Your task to perform on an android device: open app "Roku - Official Remote Control" Image 0: 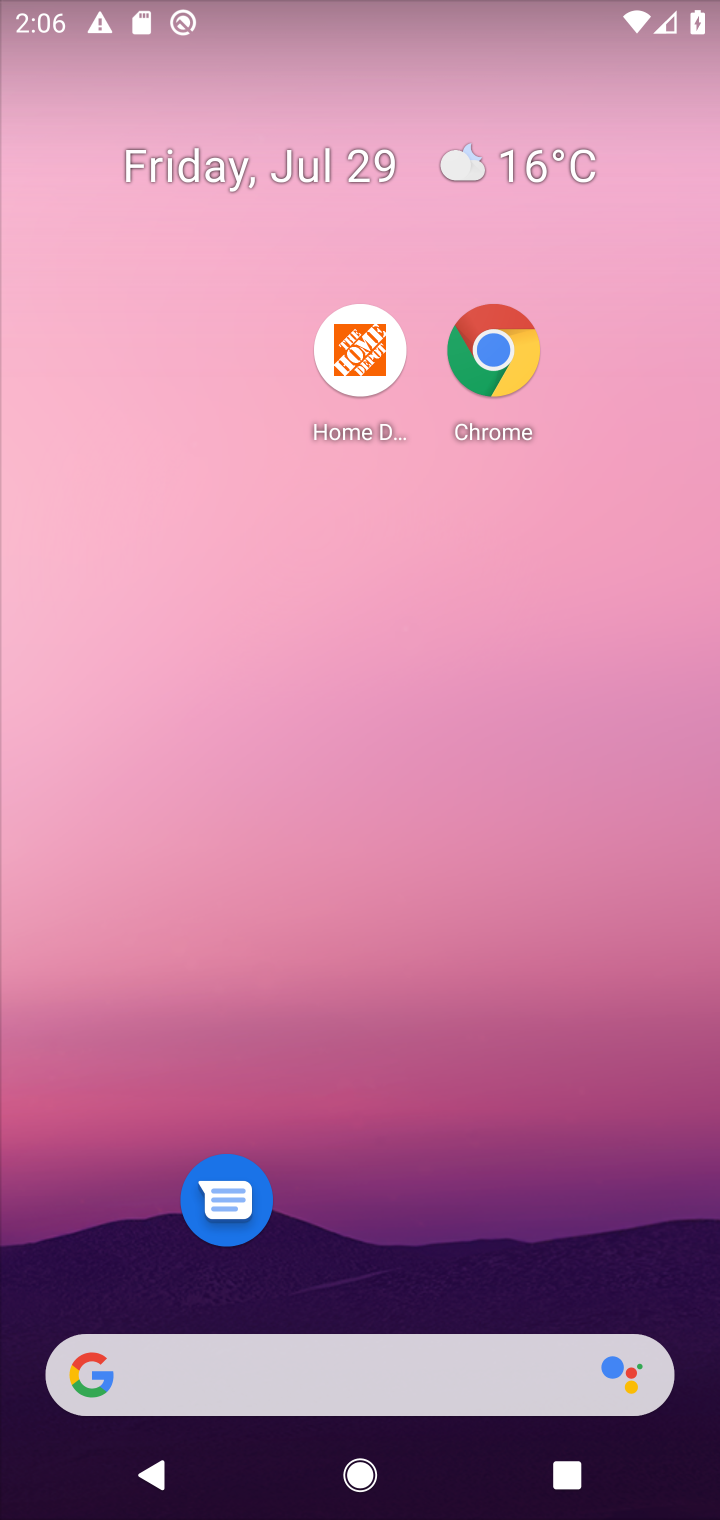
Step 0: drag from (540, 961) to (536, 188)
Your task to perform on an android device: open app "Roku - Official Remote Control" Image 1: 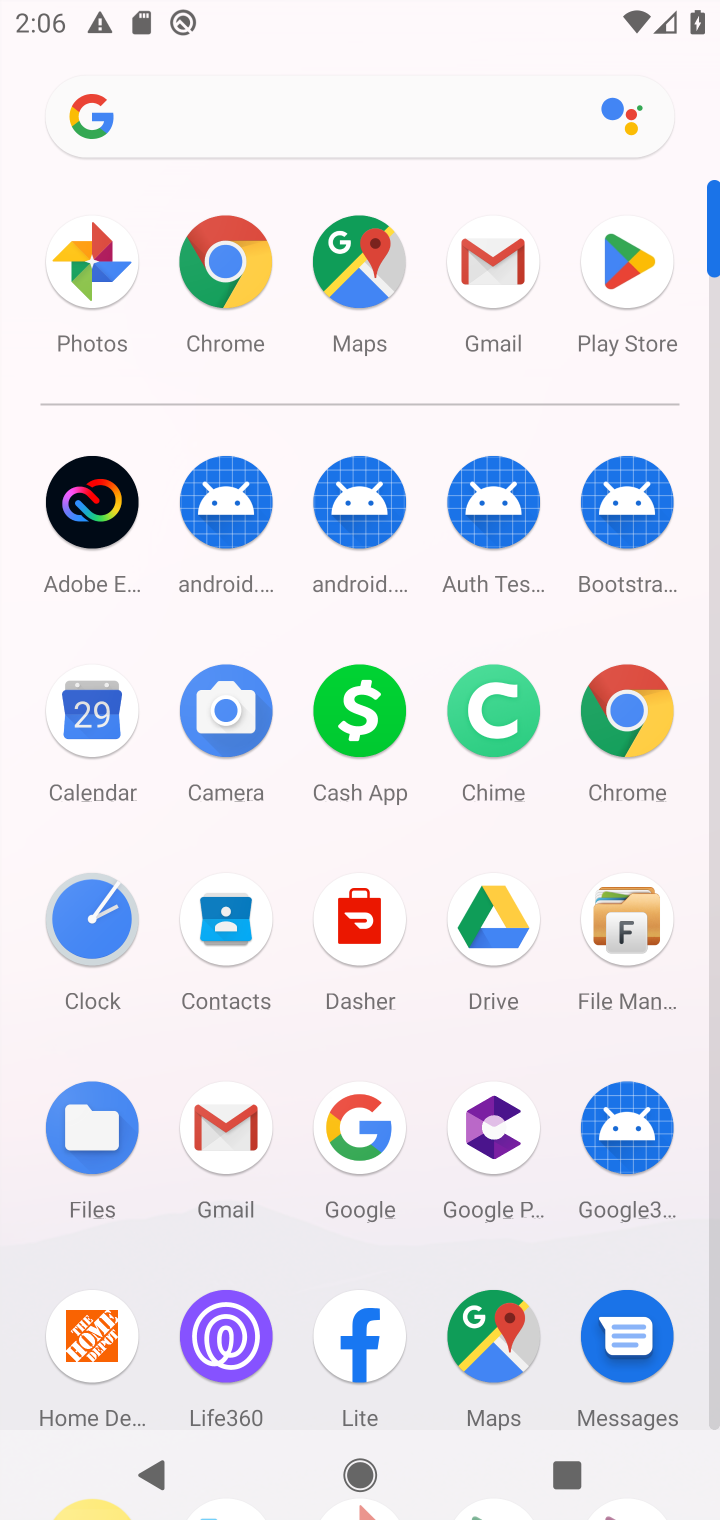
Step 1: click (643, 256)
Your task to perform on an android device: open app "Roku - Official Remote Control" Image 2: 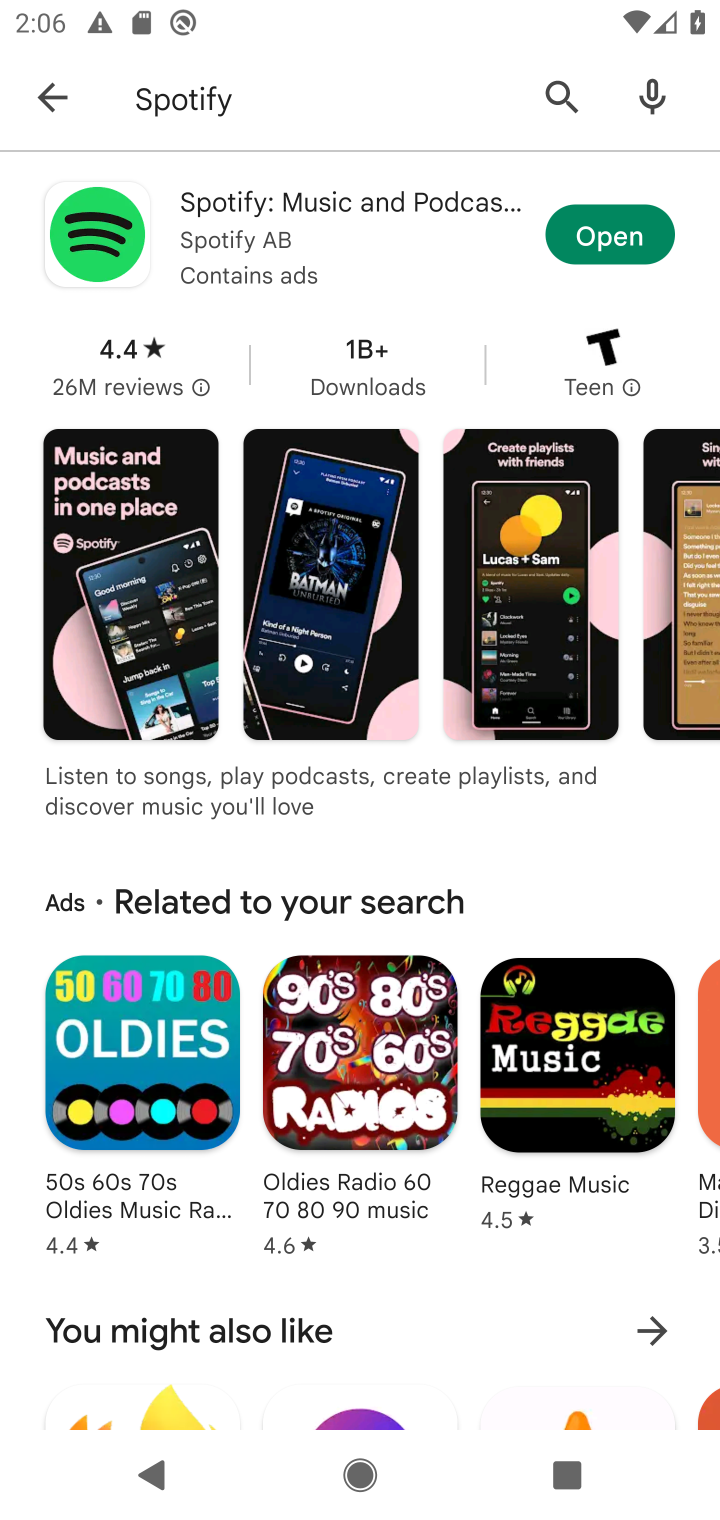
Step 2: click (332, 105)
Your task to perform on an android device: open app "Roku - Official Remote Control" Image 3: 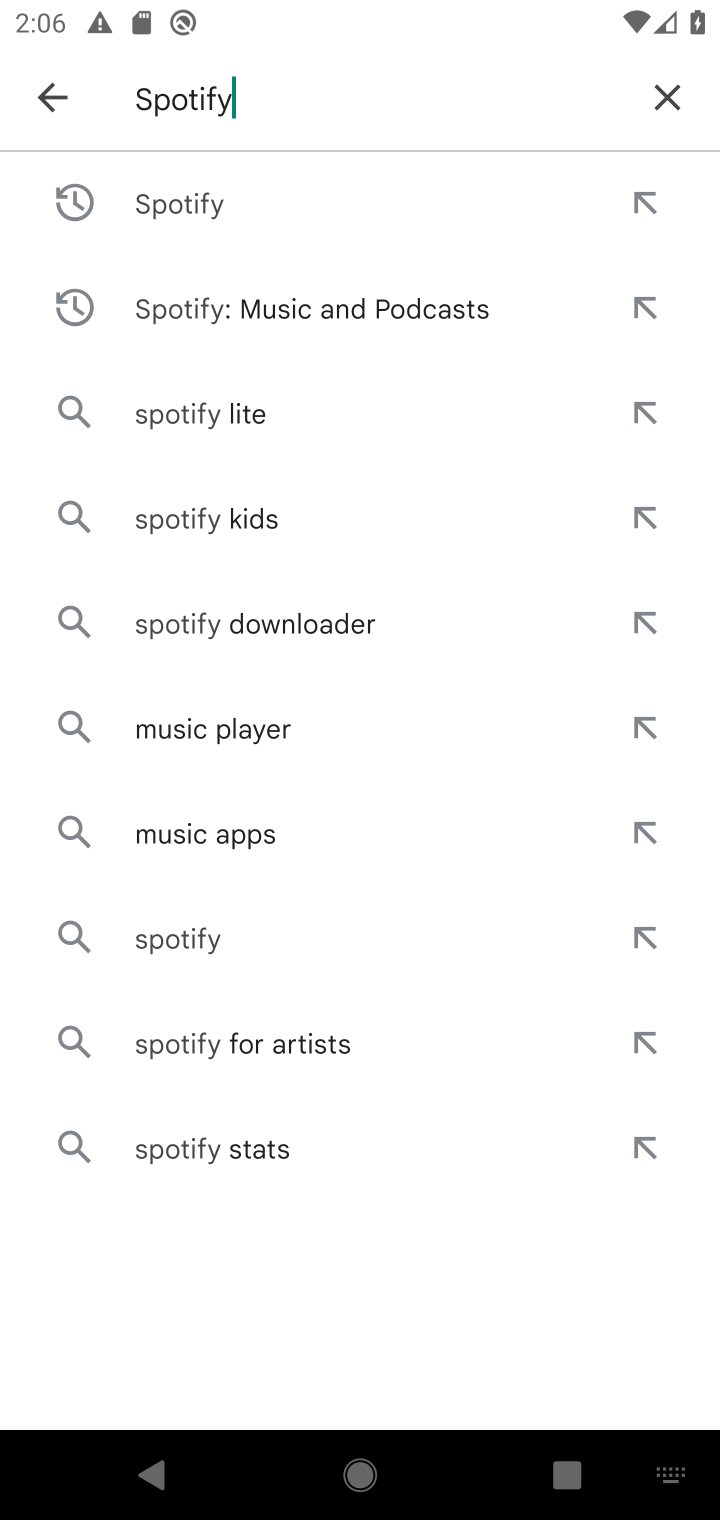
Step 3: click (651, 95)
Your task to perform on an android device: open app "Roku - Official Remote Control" Image 4: 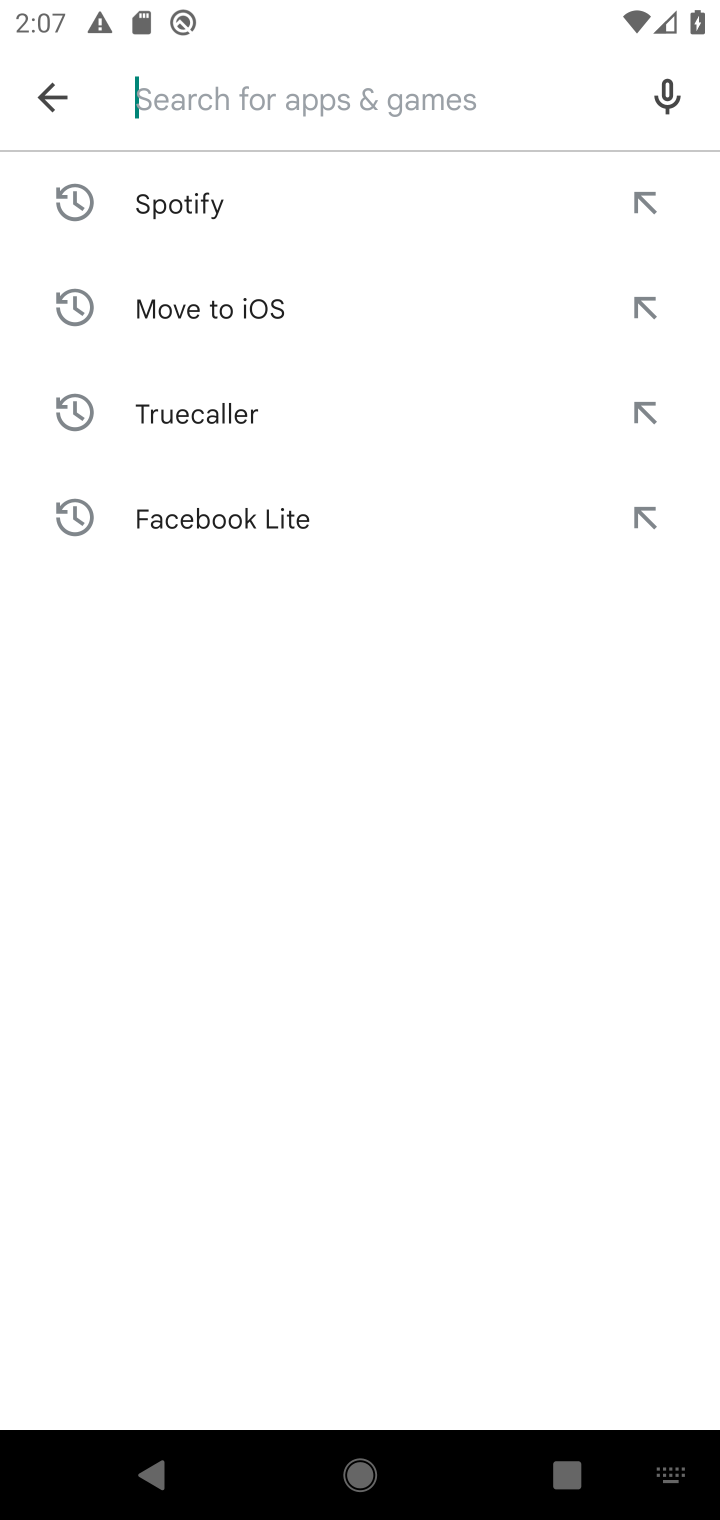
Step 4: type "Roku - Official Remote Control"
Your task to perform on an android device: open app "Roku - Official Remote Control" Image 5: 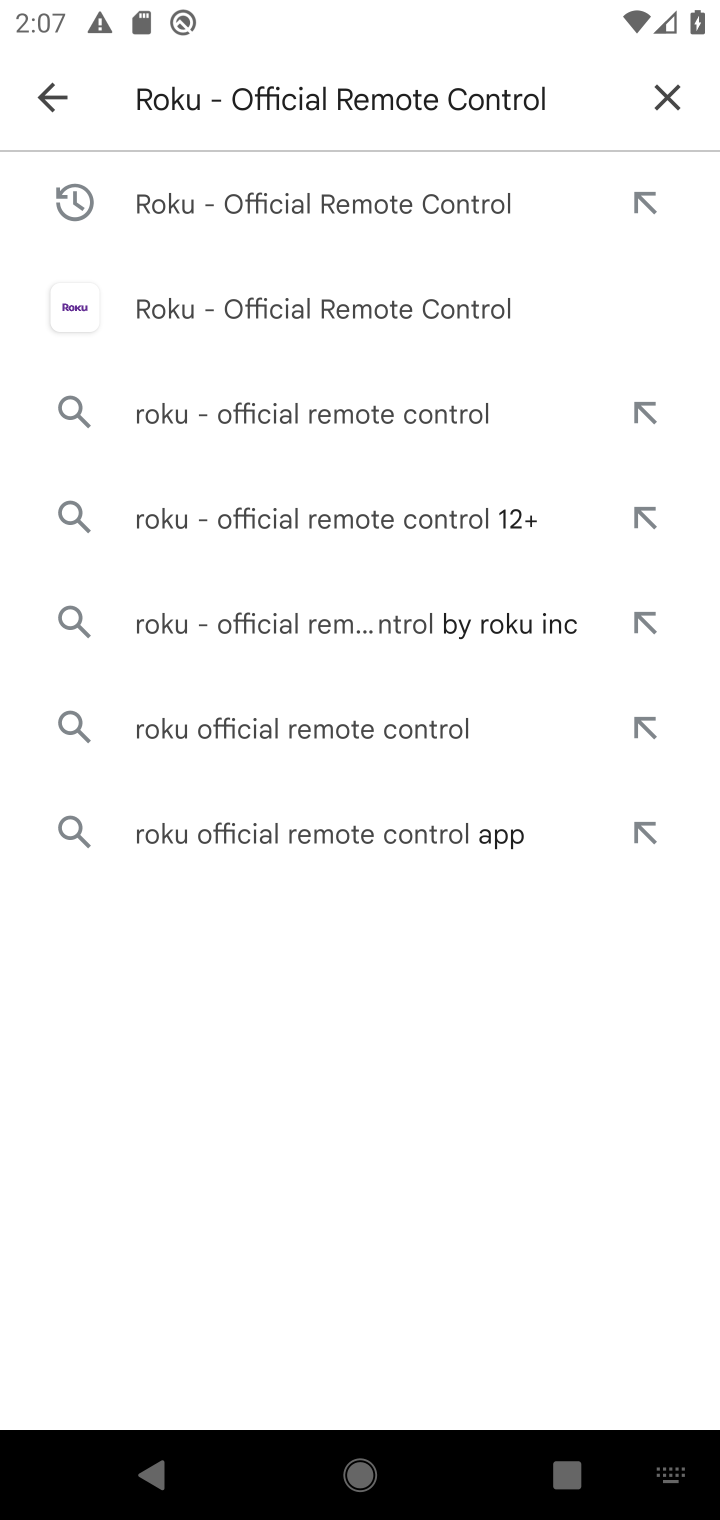
Step 5: press enter
Your task to perform on an android device: open app "Roku - Official Remote Control" Image 6: 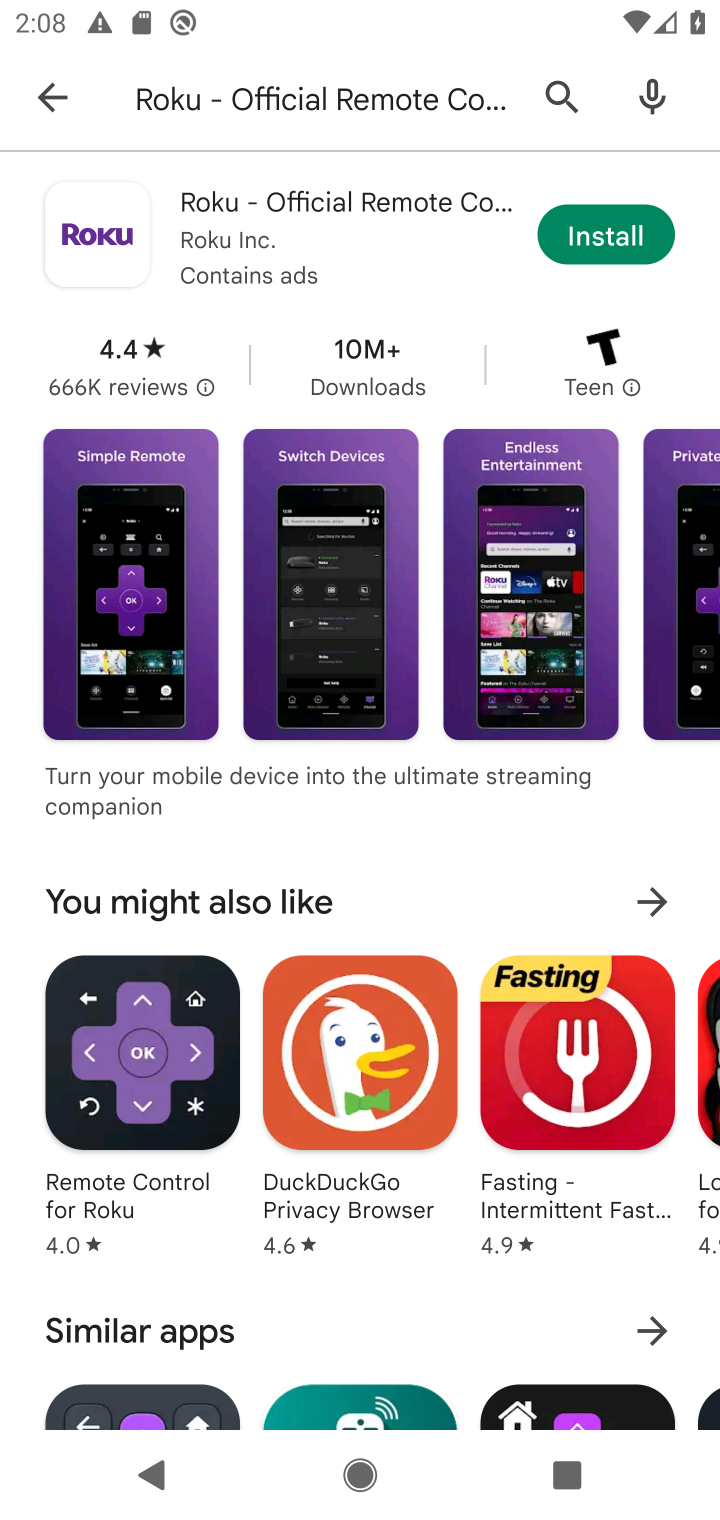
Step 6: task complete